Your task to perform on an android device: Go to Yahoo.com Image 0: 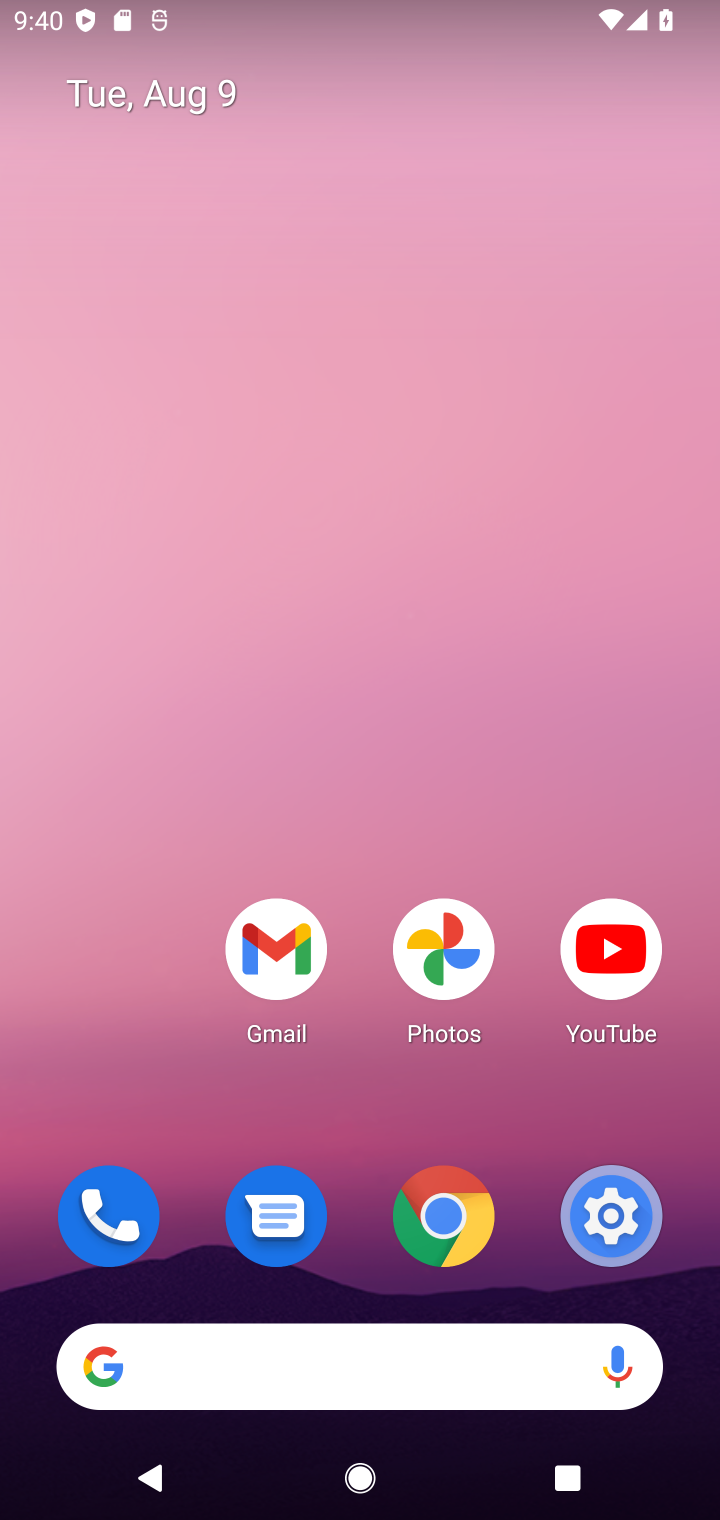
Step 0: click (452, 1230)
Your task to perform on an android device: Go to Yahoo.com Image 1: 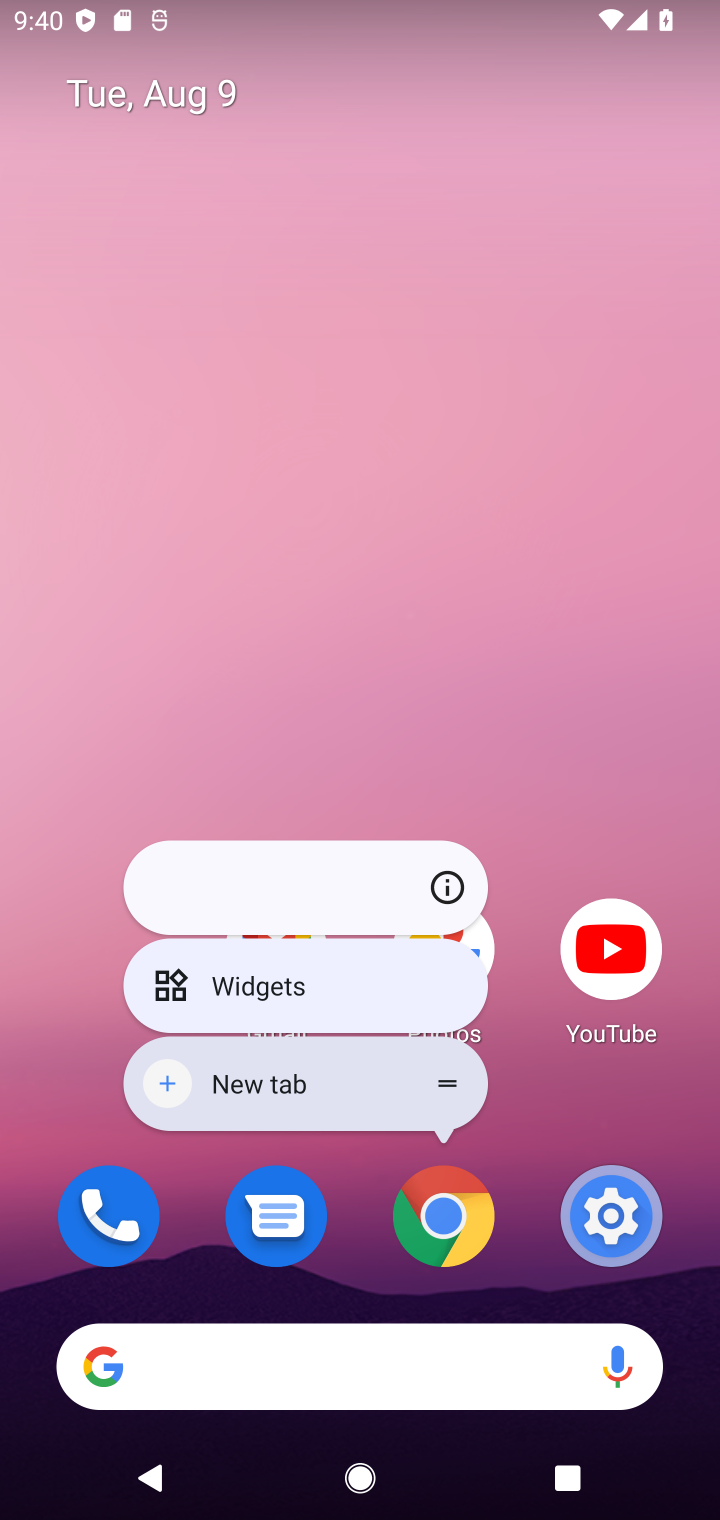
Step 1: click (452, 1230)
Your task to perform on an android device: Go to Yahoo.com Image 2: 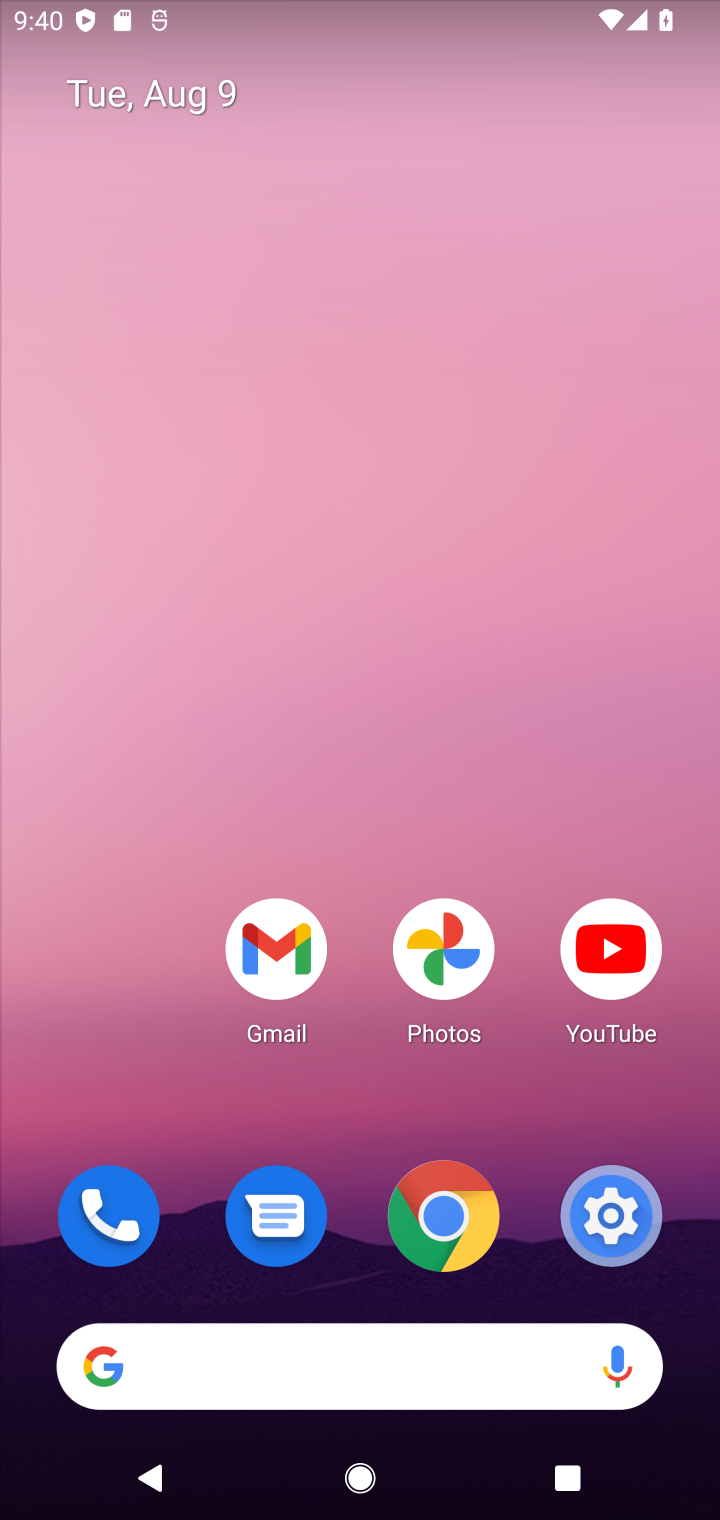
Step 2: click (446, 1227)
Your task to perform on an android device: Go to Yahoo.com Image 3: 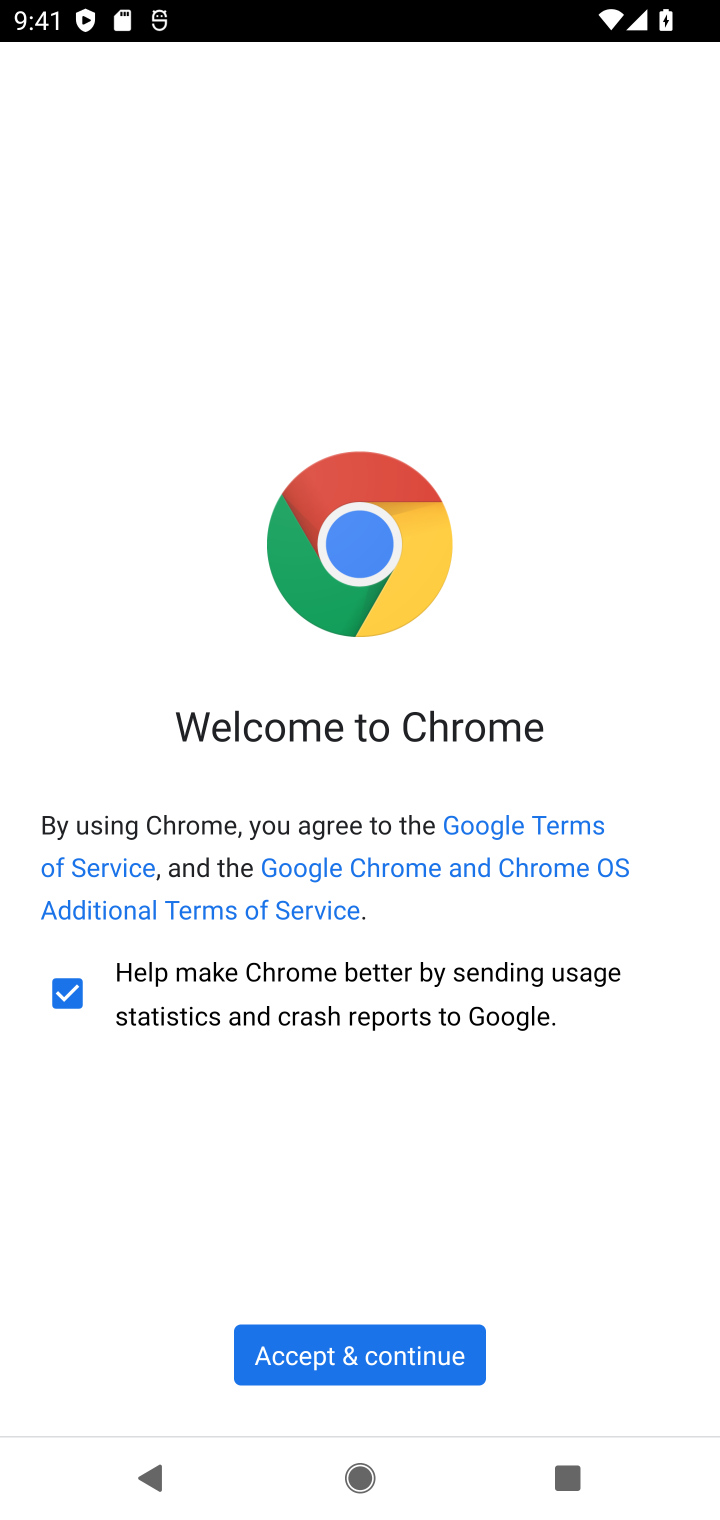
Step 3: click (376, 1351)
Your task to perform on an android device: Go to Yahoo.com Image 4: 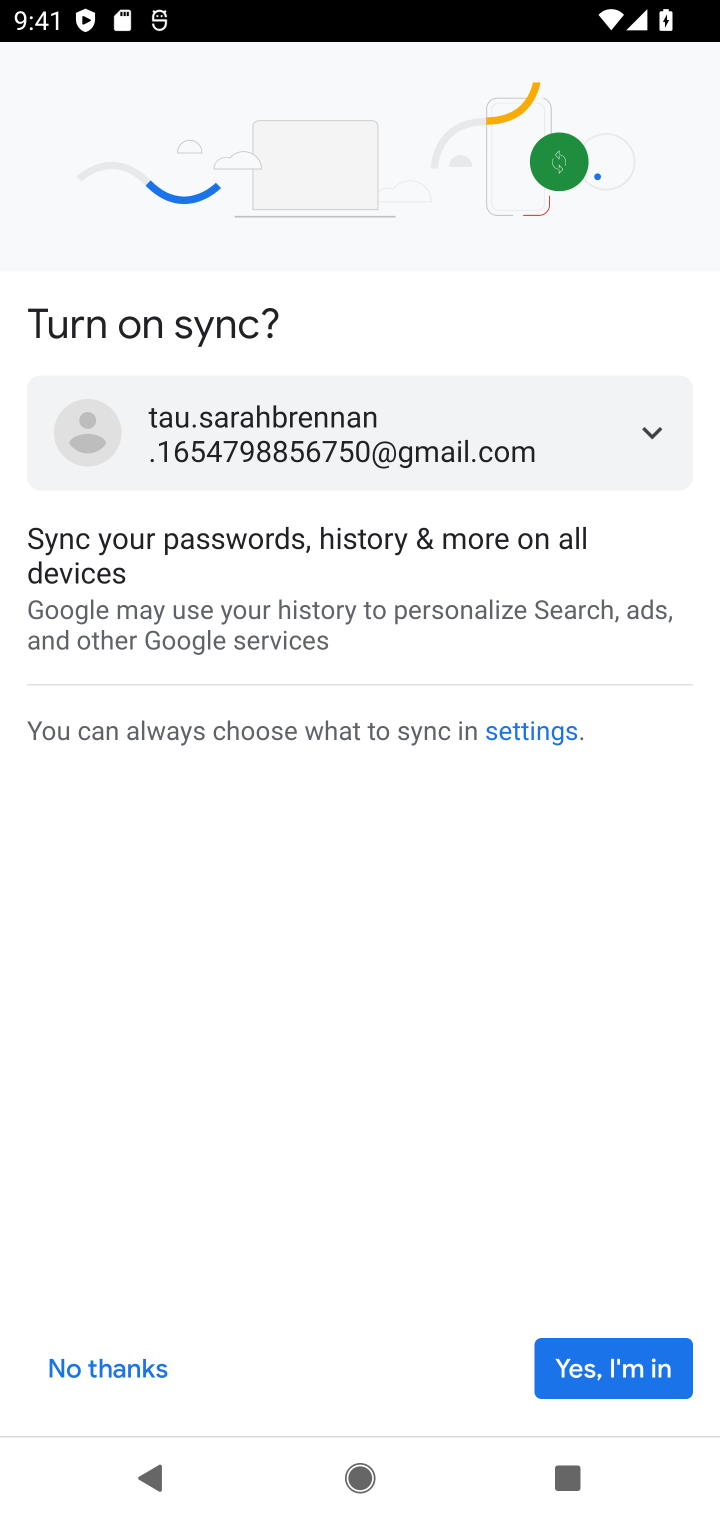
Step 4: click (551, 1380)
Your task to perform on an android device: Go to Yahoo.com Image 5: 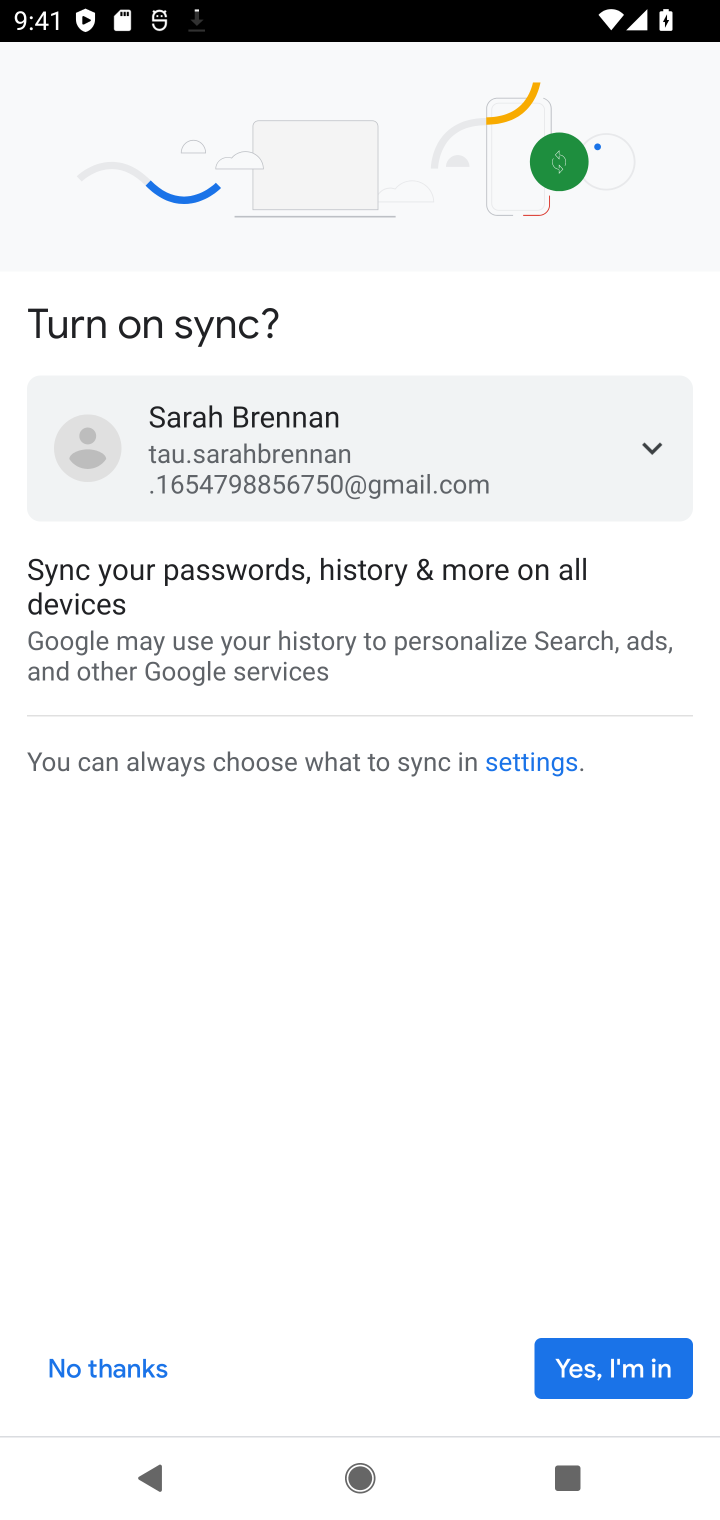
Step 5: click (593, 1372)
Your task to perform on an android device: Go to Yahoo.com Image 6: 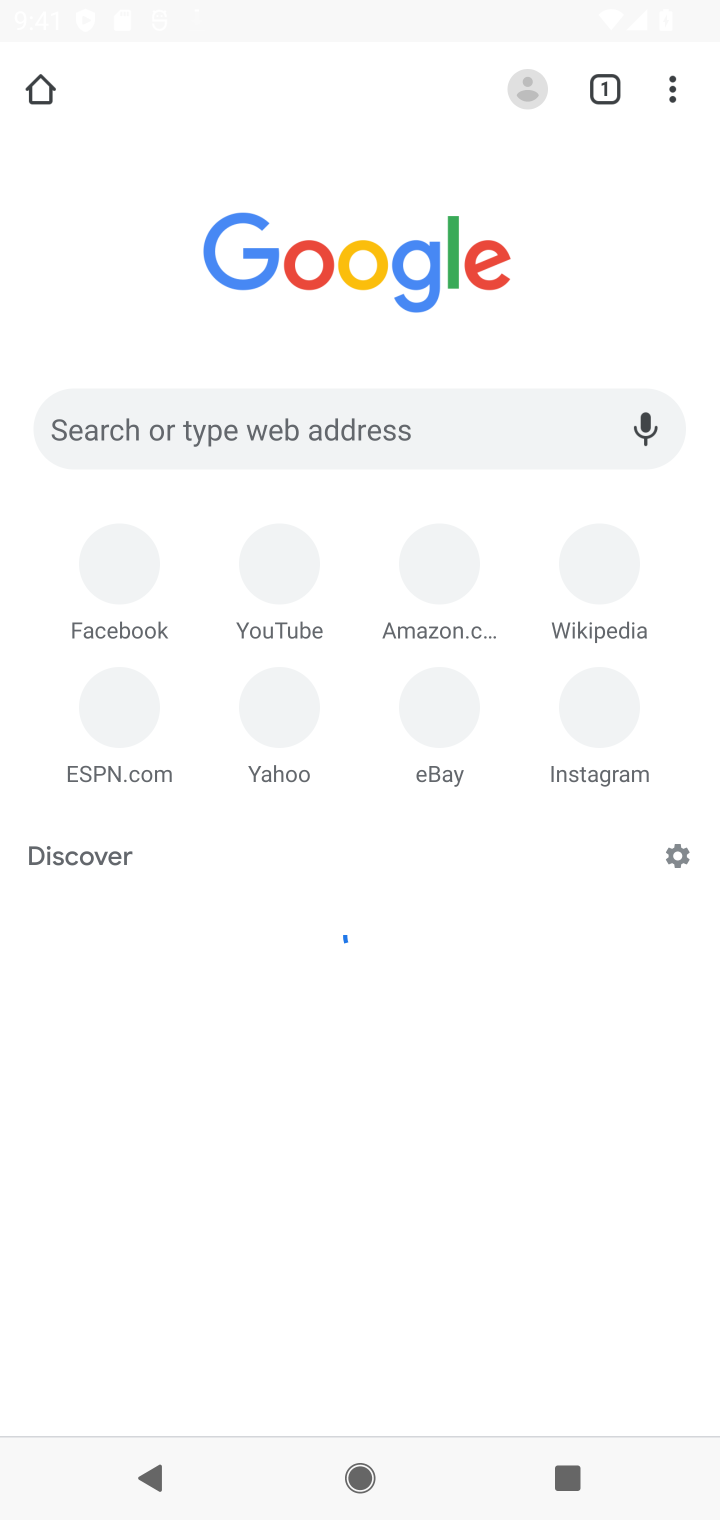
Step 6: click (604, 1372)
Your task to perform on an android device: Go to Yahoo.com Image 7: 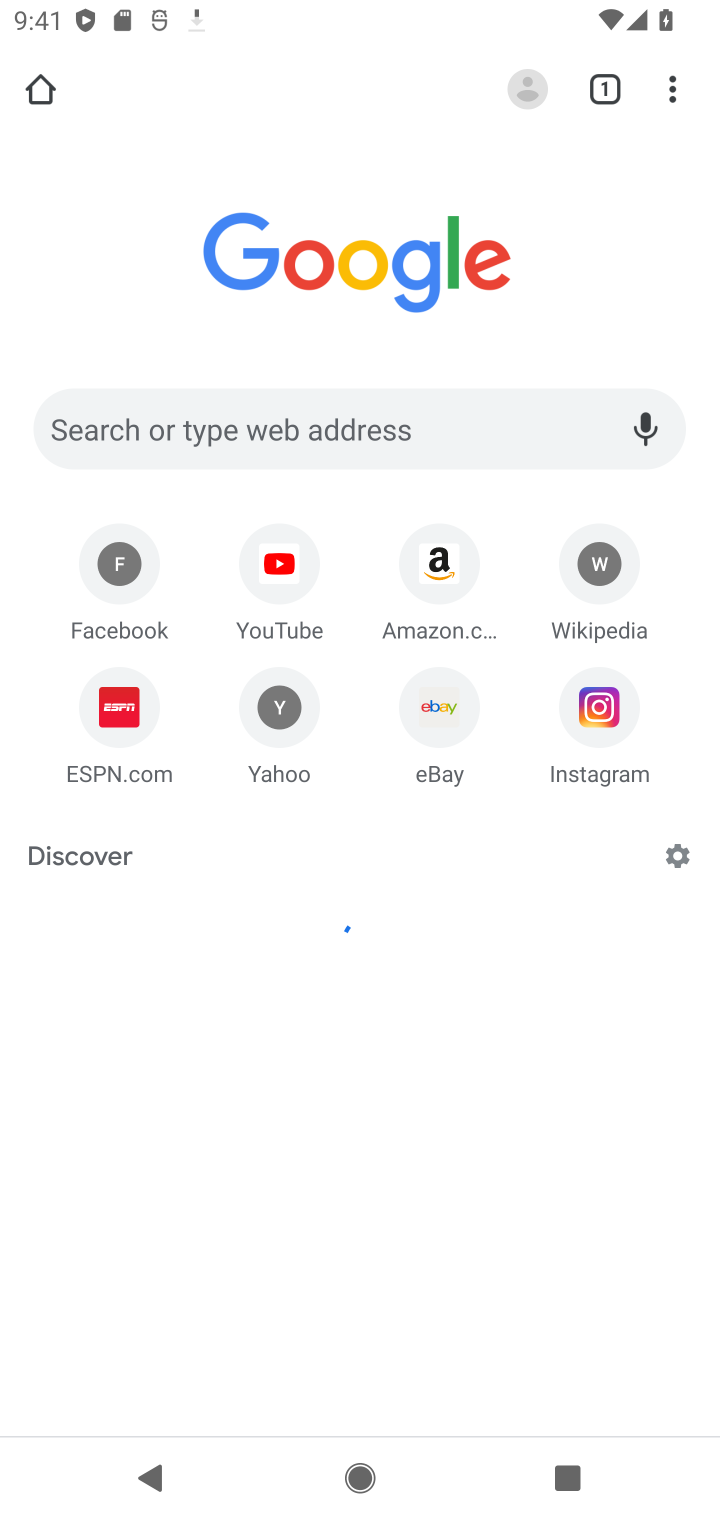
Step 7: click (275, 734)
Your task to perform on an android device: Go to Yahoo.com Image 8: 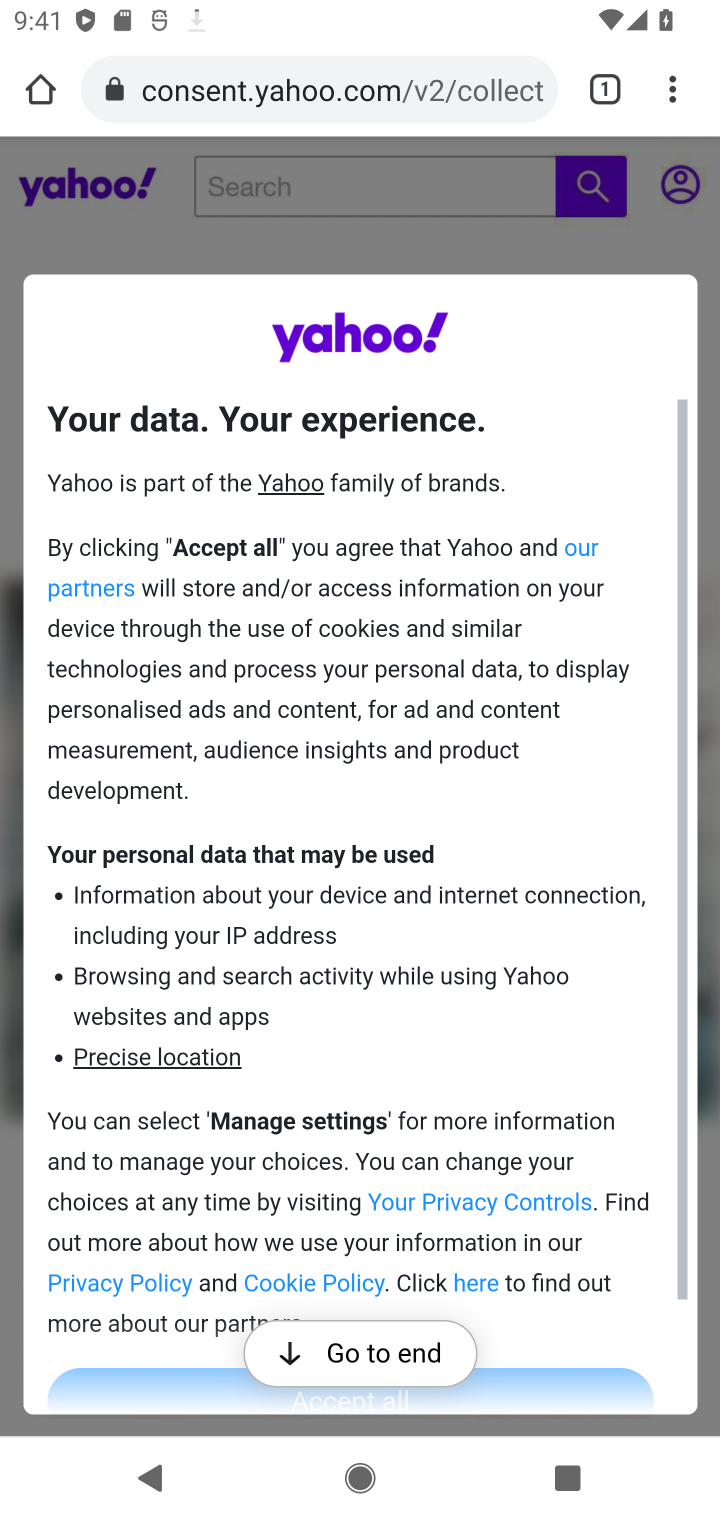
Step 8: task complete